Your task to perform on an android device: toggle notifications settings in the gmail app Image 0: 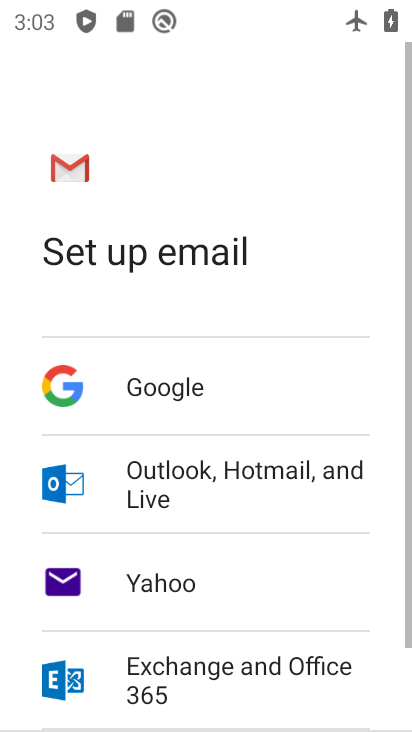
Step 0: press home button
Your task to perform on an android device: toggle notifications settings in the gmail app Image 1: 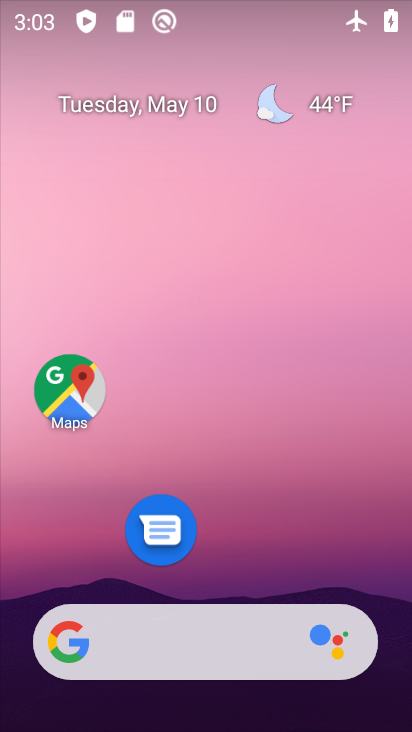
Step 1: drag from (258, 576) to (258, 65)
Your task to perform on an android device: toggle notifications settings in the gmail app Image 2: 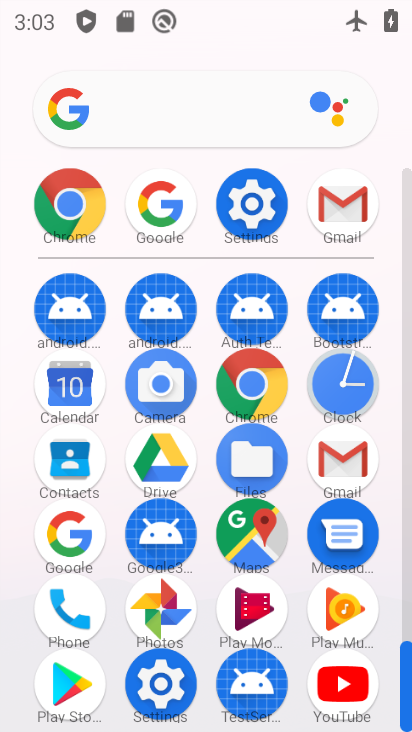
Step 2: click (341, 194)
Your task to perform on an android device: toggle notifications settings in the gmail app Image 3: 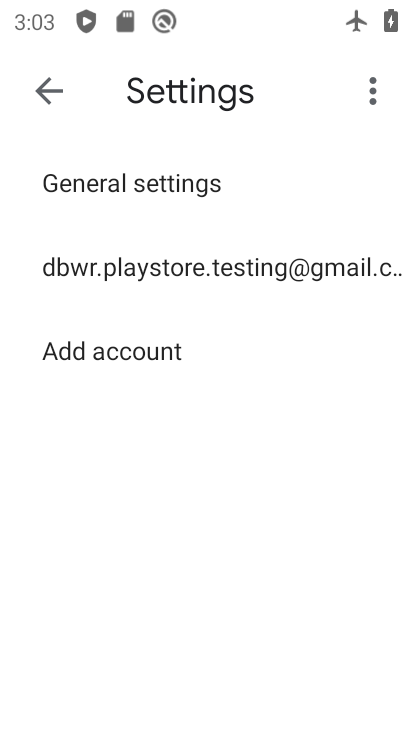
Step 3: click (115, 264)
Your task to perform on an android device: toggle notifications settings in the gmail app Image 4: 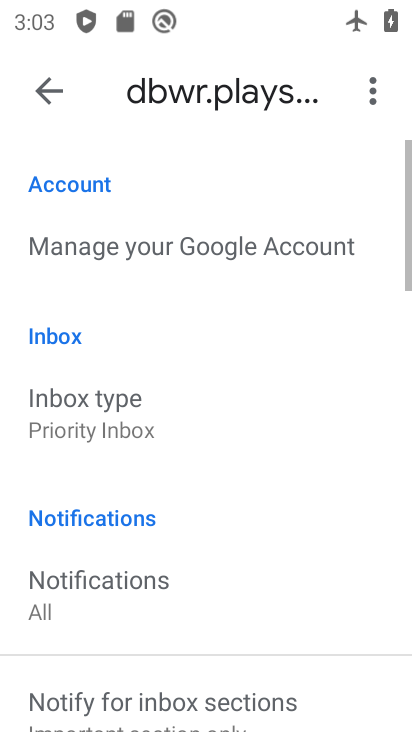
Step 4: click (106, 576)
Your task to perform on an android device: toggle notifications settings in the gmail app Image 5: 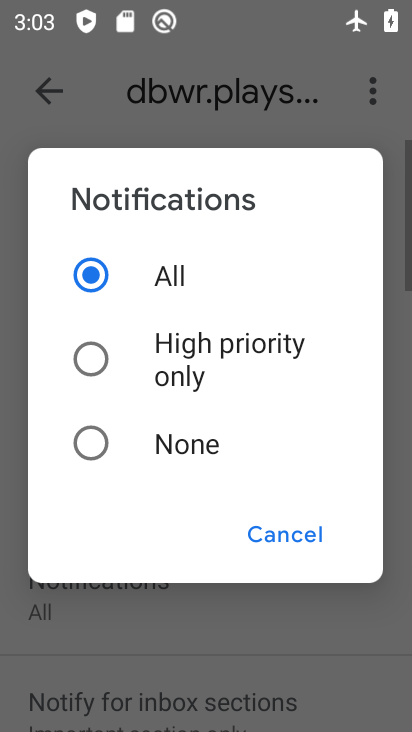
Step 5: click (93, 454)
Your task to perform on an android device: toggle notifications settings in the gmail app Image 6: 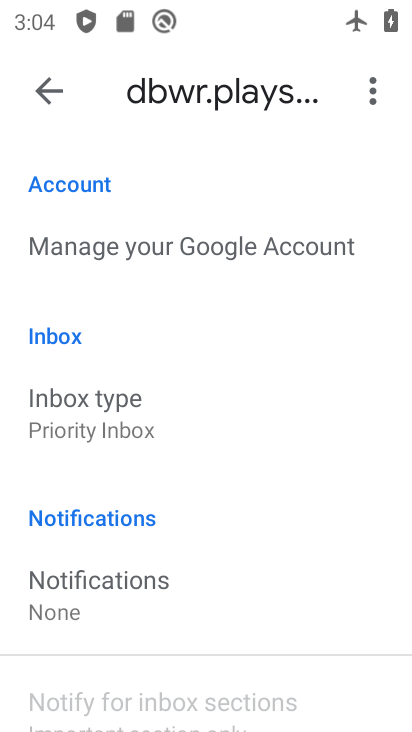
Step 6: task complete